Your task to perform on an android device: Open Chrome and go to settings Image 0: 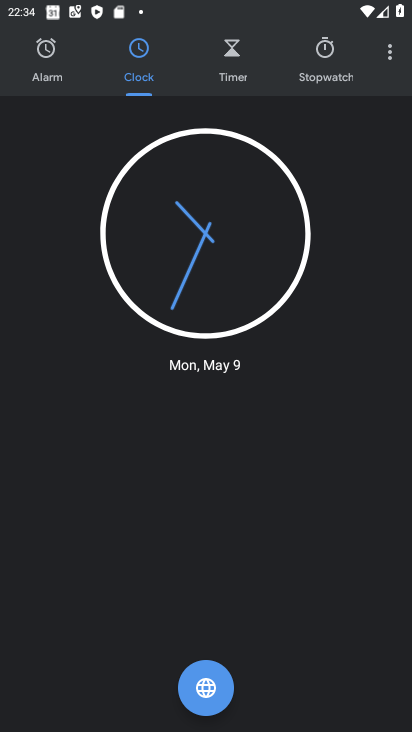
Step 0: press home button
Your task to perform on an android device: Open Chrome and go to settings Image 1: 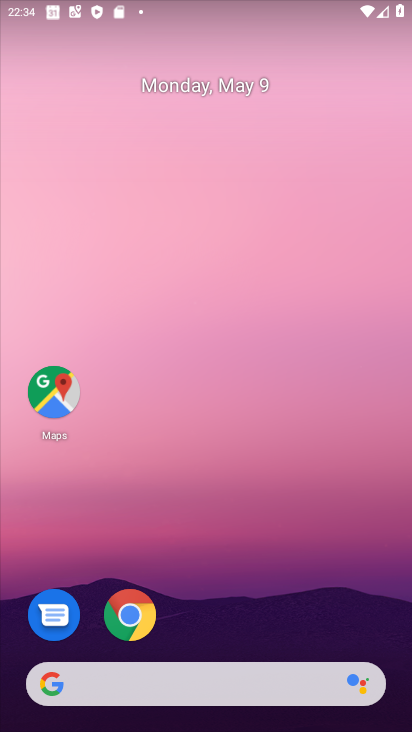
Step 1: drag from (164, 647) to (194, 231)
Your task to perform on an android device: Open Chrome and go to settings Image 2: 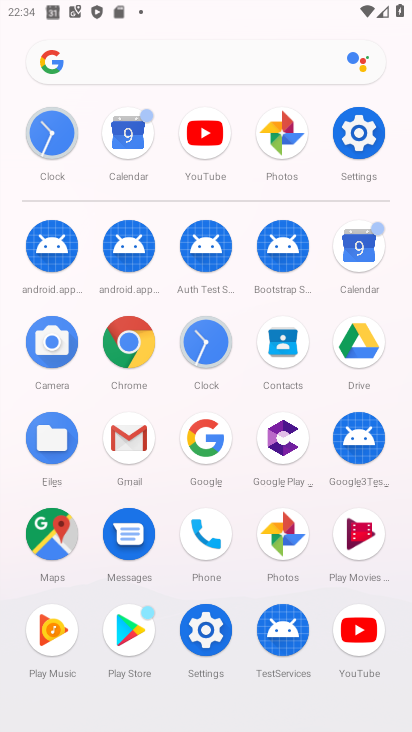
Step 2: click (128, 344)
Your task to perform on an android device: Open Chrome and go to settings Image 3: 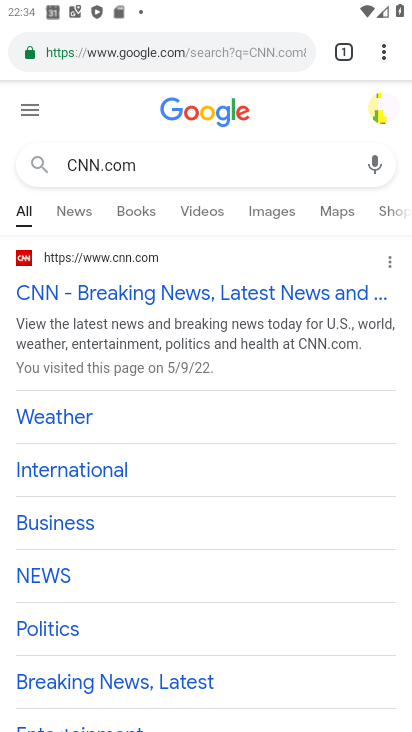
Step 3: click (383, 54)
Your task to perform on an android device: Open Chrome and go to settings Image 4: 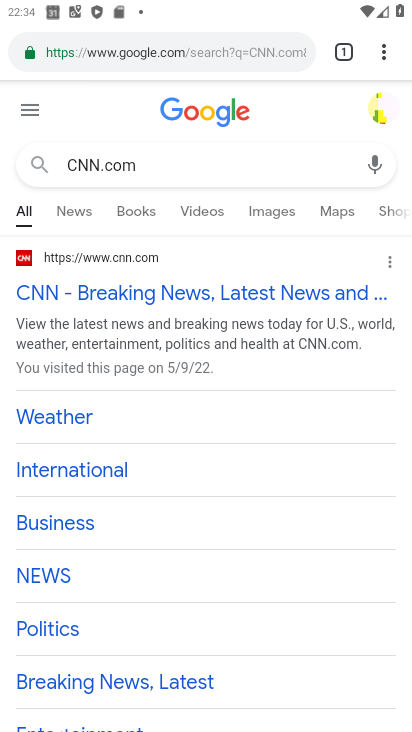
Step 4: click (383, 46)
Your task to perform on an android device: Open Chrome and go to settings Image 5: 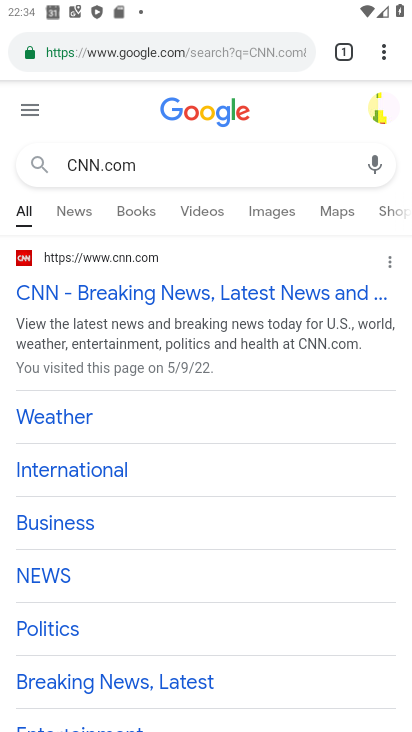
Step 5: click (384, 55)
Your task to perform on an android device: Open Chrome and go to settings Image 6: 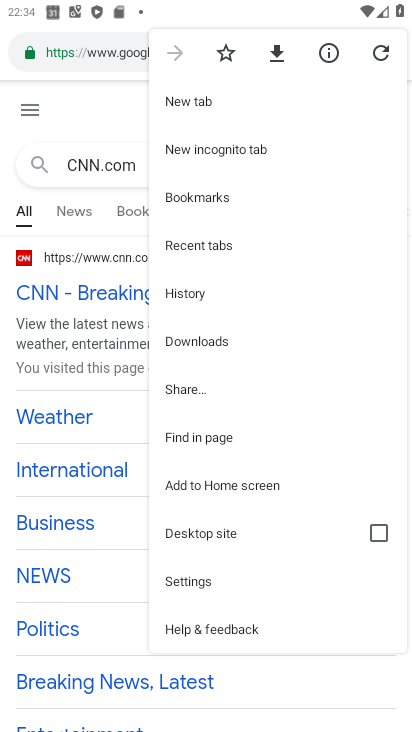
Step 6: click (197, 584)
Your task to perform on an android device: Open Chrome and go to settings Image 7: 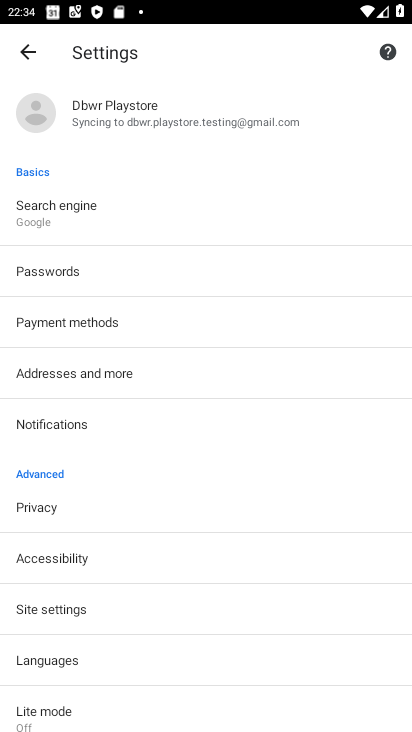
Step 7: task complete